Your task to perform on an android device: Open Google Chrome and open the bookmarks view Image 0: 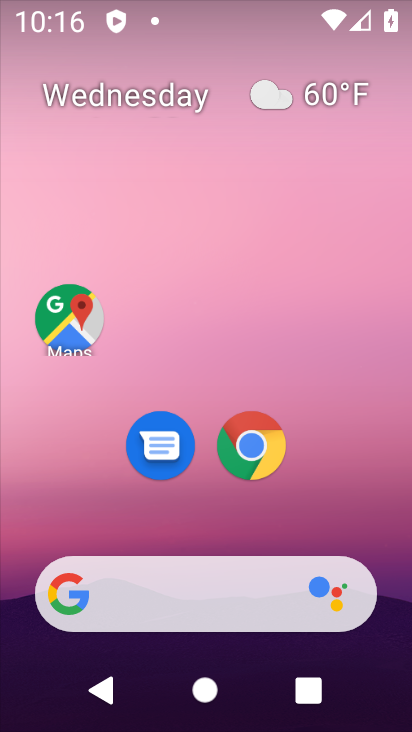
Step 0: click (255, 437)
Your task to perform on an android device: Open Google Chrome and open the bookmarks view Image 1: 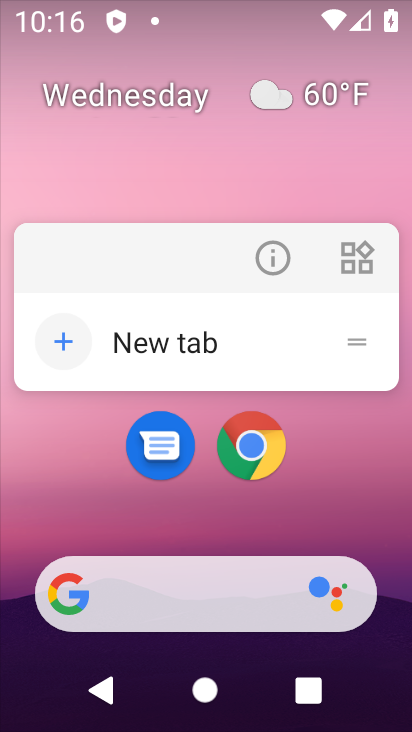
Step 1: click (255, 437)
Your task to perform on an android device: Open Google Chrome and open the bookmarks view Image 2: 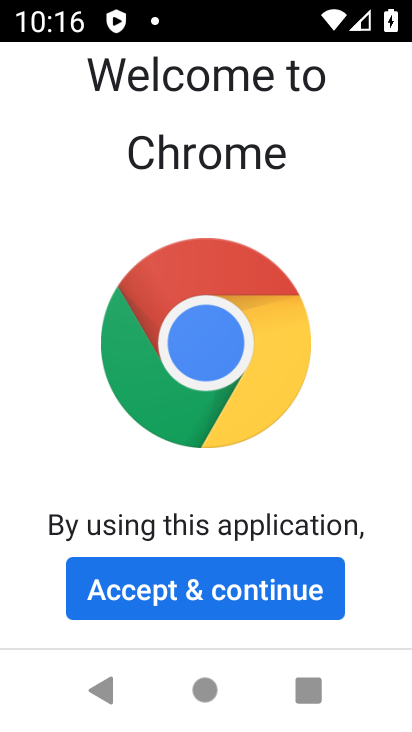
Step 2: click (190, 581)
Your task to perform on an android device: Open Google Chrome and open the bookmarks view Image 3: 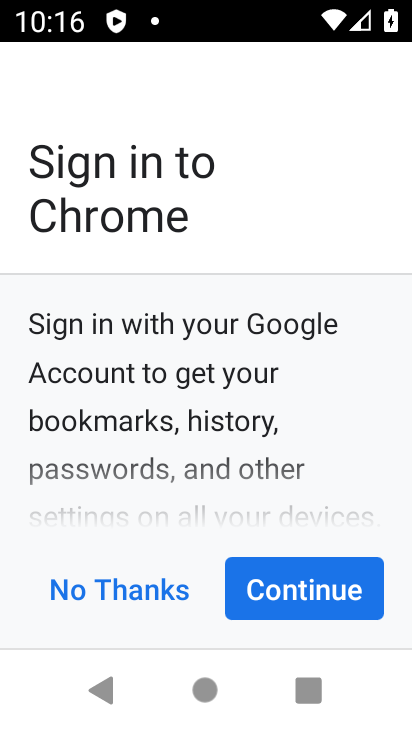
Step 3: click (329, 584)
Your task to perform on an android device: Open Google Chrome and open the bookmarks view Image 4: 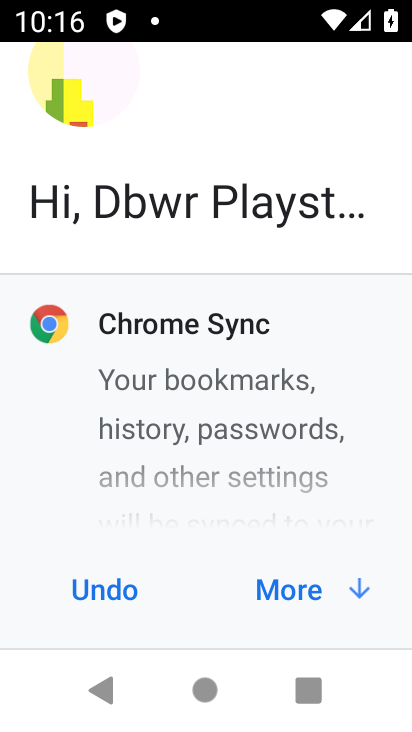
Step 4: click (302, 591)
Your task to perform on an android device: Open Google Chrome and open the bookmarks view Image 5: 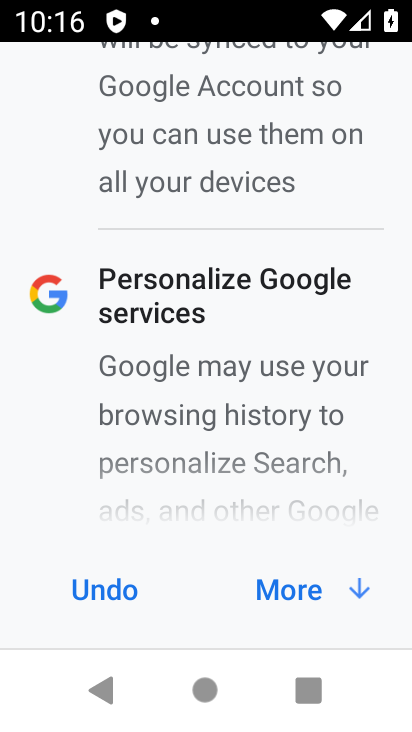
Step 5: click (302, 591)
Your task to perform on an android device: Open Google Chrome and open the bookmarks view Image 6: 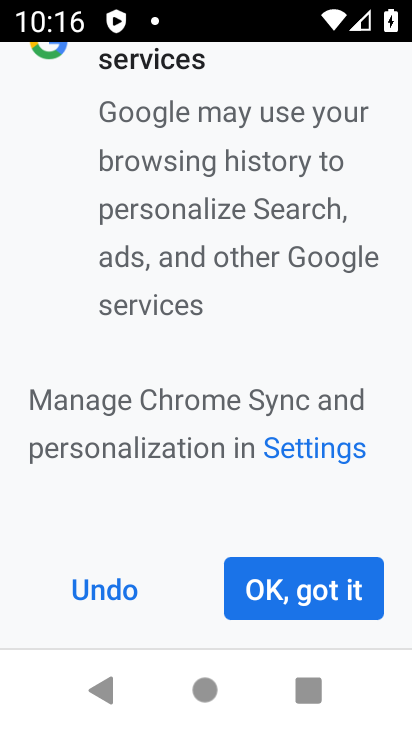
Step 6: click (302, 591)
Your task to perform on an android device: Open Google Chrome and open the bookmarks view Image 7: 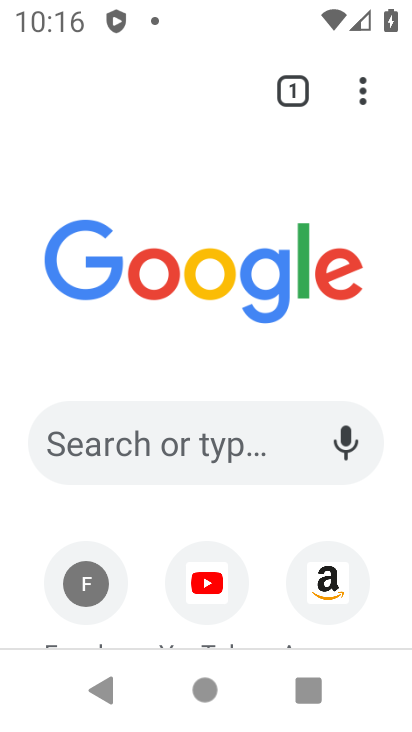
Step 7: click (360, 84)
Your task to perform on an android device: Open Google Chrome and open the bookmarks view Image 8: 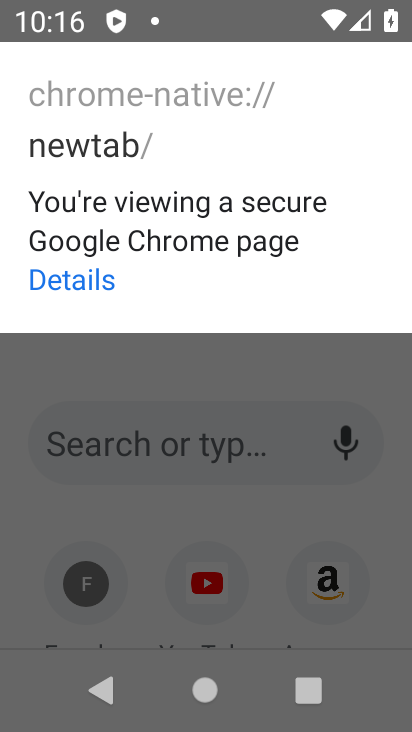
Step 8: click (298, 422)
Your task to perform on an android device: Open Google Chrome and open the bookmarks view Image 9: 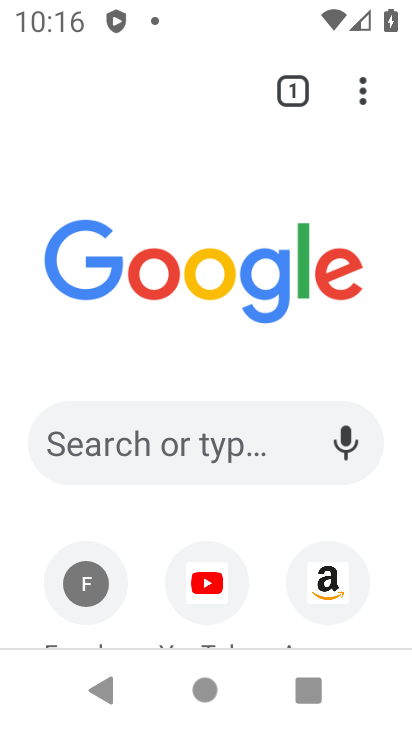
Step 9: task complete